Your task to perform on an android device: toggle data saver in the chrome app Image 0: 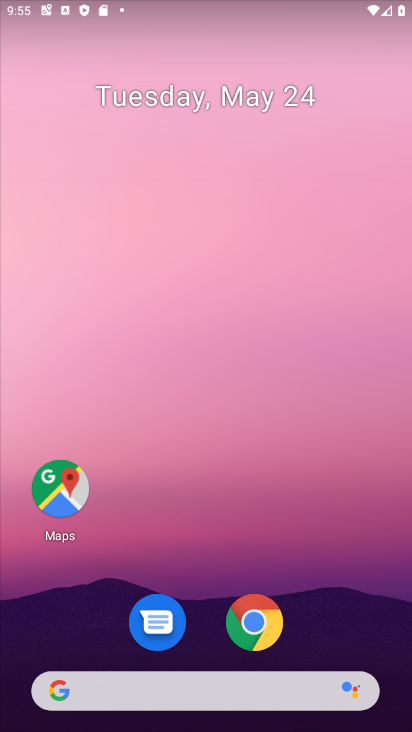
Step 0: click (297, 338)
Your task to perform on an android device: toggle data saver in the chrome app Image 1: 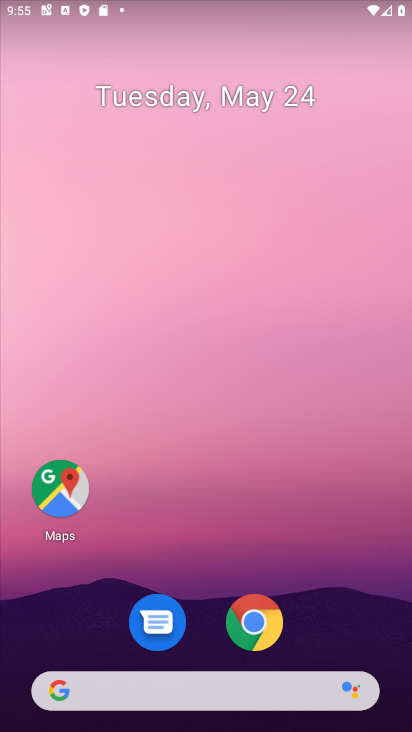
Step 1: drag from (296, 704) to (353, 308)
Your task to perform on an android device: toggle data saver in the chrome app Image 2: 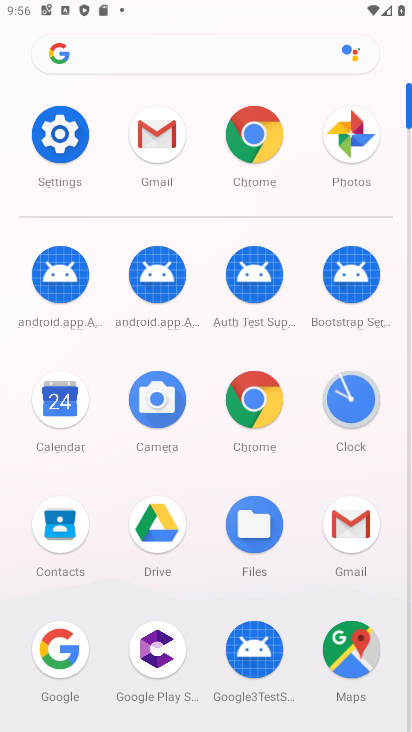
Step 2: click (259, 120)
Your task to perform on an android device: toggle data saver in the chrome app Image 3: 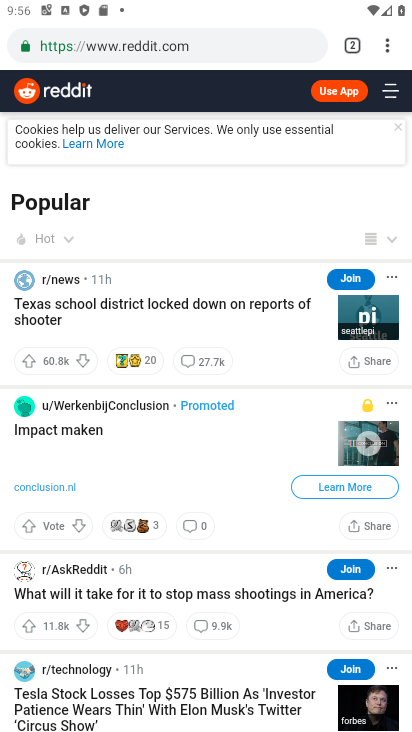
Step 3: click (390, 59)
Your task to perform on an android device: toggle data saver in the chrome app Image 4: 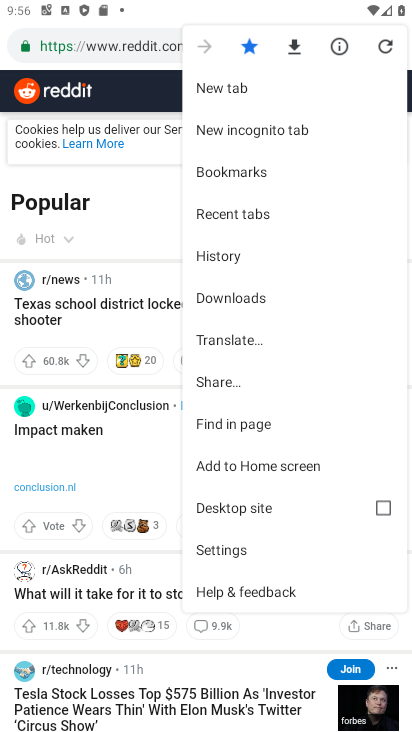
Step 4: click (228, 546)
Your task to perform on an android device: toggle data saver in the chrome app Image 5: 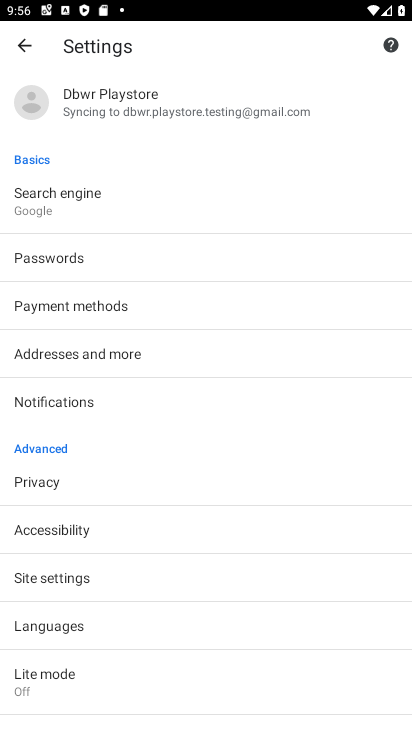
Step 5: drag from (117, 602) to (135, 568)
Your task to perform on an android device: toggle data saver in the chrome app Image 6: 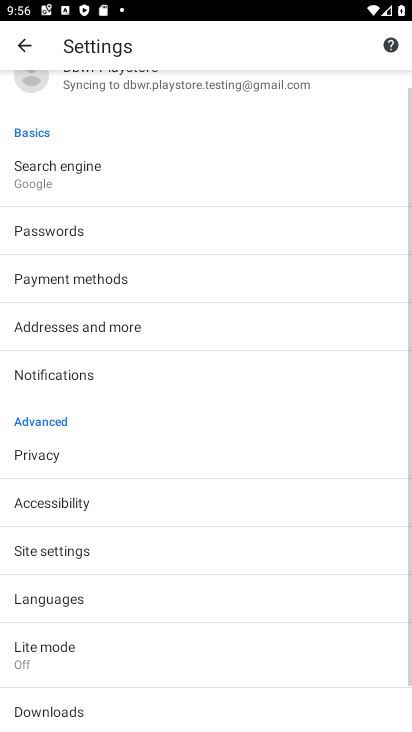
Step 6: click (40, 669)
Your task to perform on an android device: toggle data saver in the chrome app Image 7: 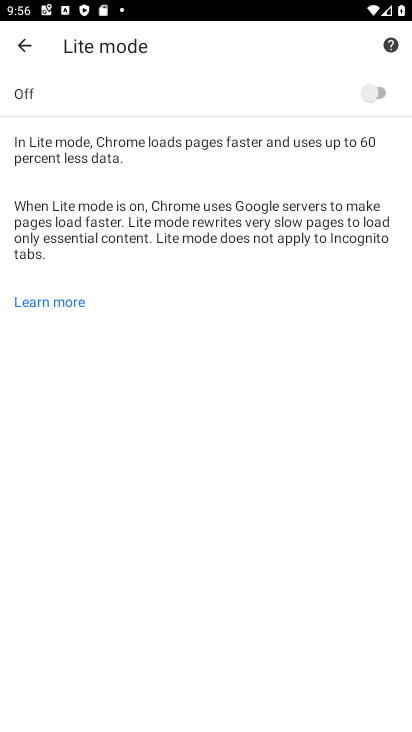
Step 7: task complete